Your task to perform on an android device: Open Amazon Image 0: 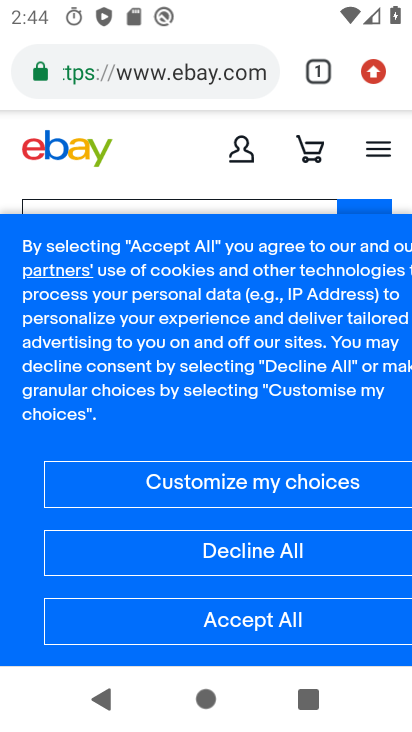
Step 0: drag from (320, 87) to (335, 369)
Your task to perform on an android device: Open Amazon Image 1: 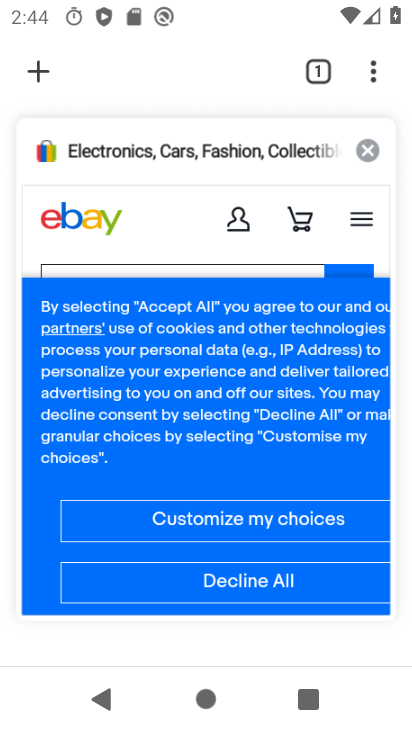
Step 1: click (47, 77)
Your task to perform on an android device: Open Amazon Image 2: 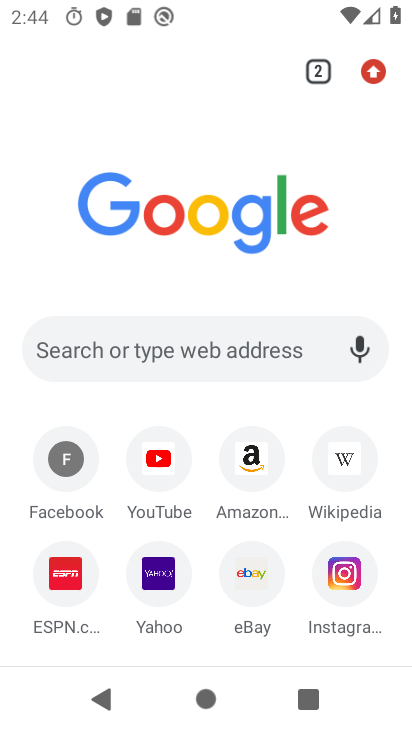
Step 2: click (263, 474)
Your task to perform on an android device: Open Amazon Image 3: 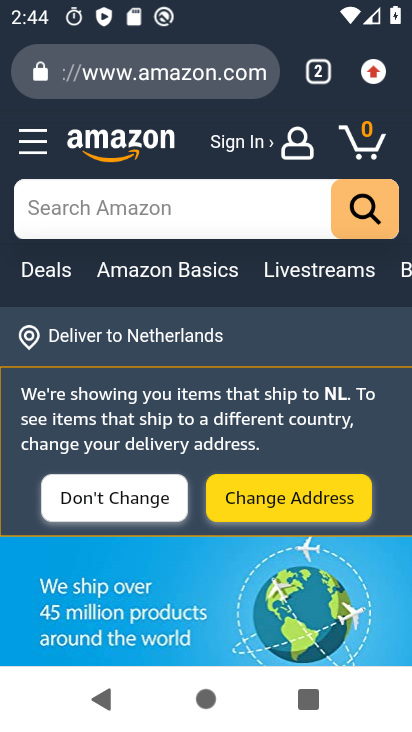
Step 3: task complete